Your task to perform on an android device: open app "Facebook Lite" (install if not already installed) Image 0: 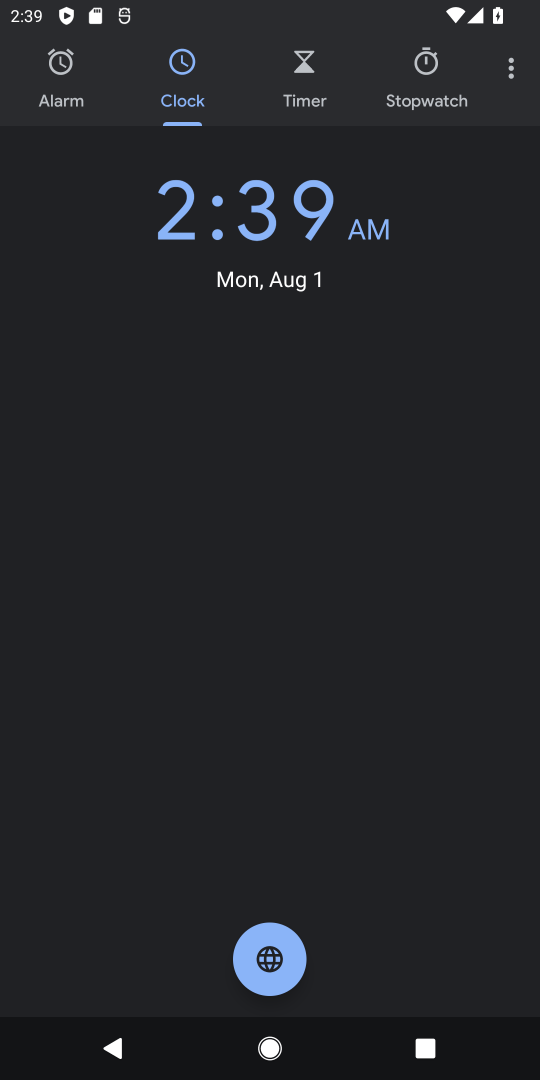
Step 0: press home button
Your task to perform on an android device: open app "Facebook Lite" (install if not already installed) Image 1: 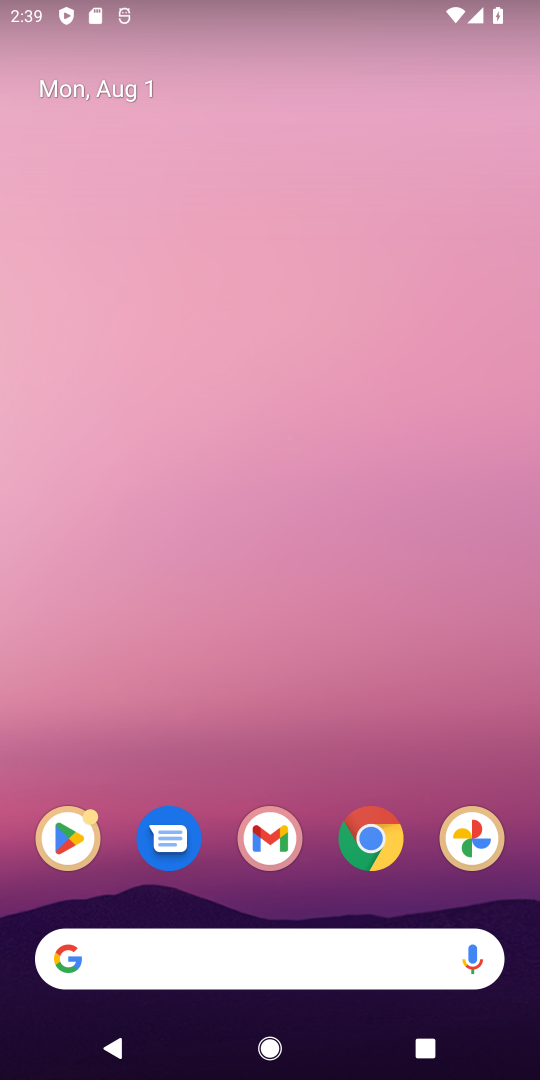
Step 1: drag from (259, 721) to (329, 50)
Your task to perform on an android device: open app "Facebook Lite" (install if not already installed) Image 2: 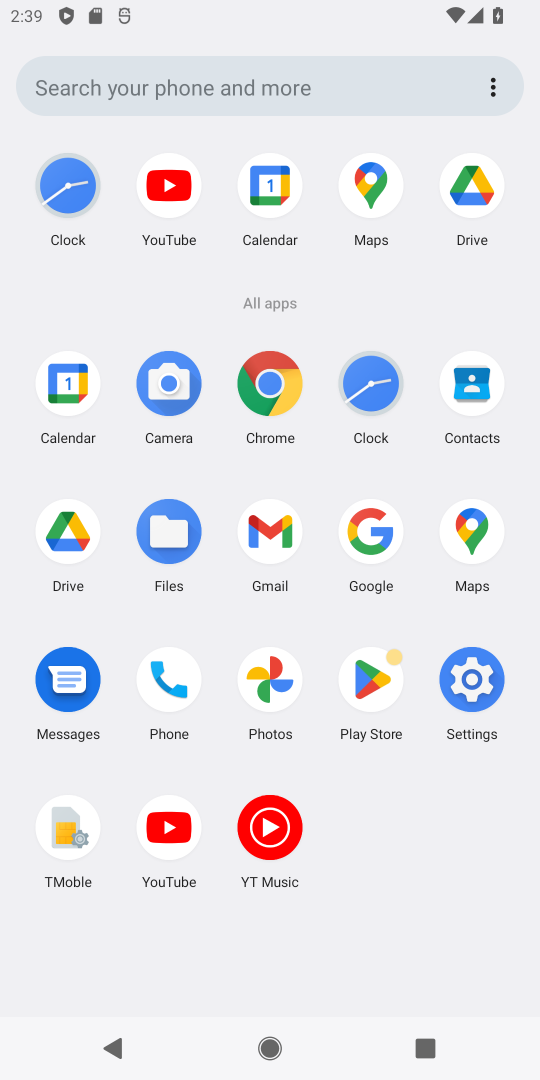
Step 2: click (372, 681)
Your task to perform on an android device: open app "Facebook Lite" (install if not already installed) Image 3: 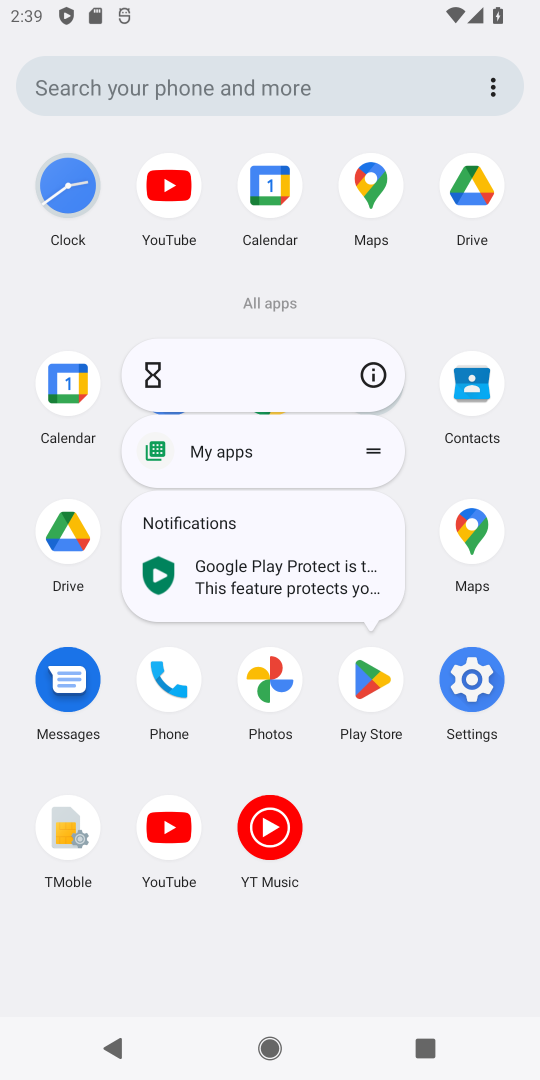
Step 3: click (372, 679)
Your task to perform on an android device: open app "Facebook Lite" (install if not already installed) Image 4: 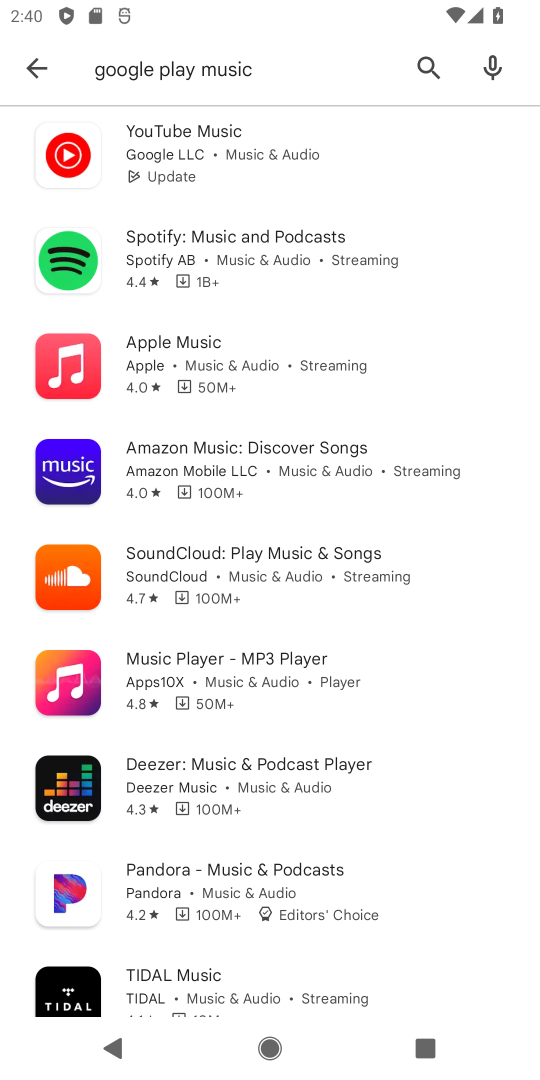
Step 4: click (298, 61)
Your task to perform on an android device: open app "Facebook Lite" (install if not already installed) Image 5: 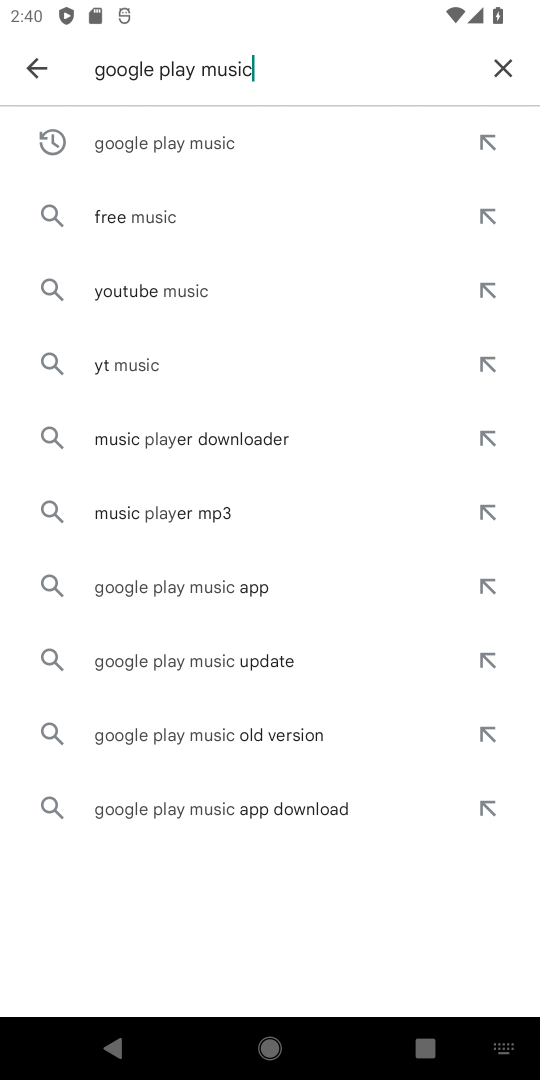
Step 5: click (504, 61)
Your task to perform on an android device: open app "Facebook Lite" (install if not already installed) Image 6: 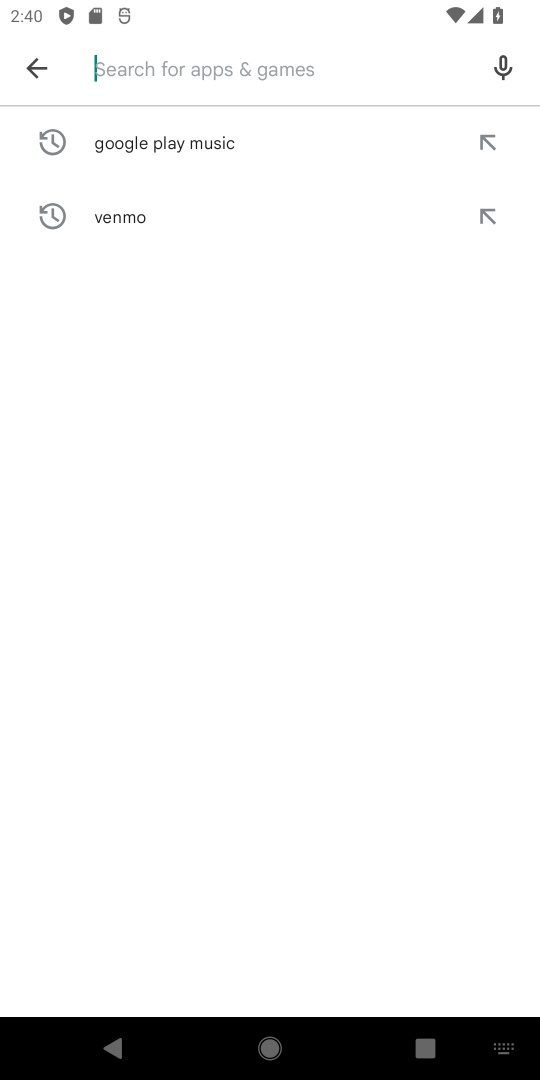
Step 6: type "facebook lite"
Your task to perform on an android device: open app "Facebook Lite" (install if not already installed) Image 7: 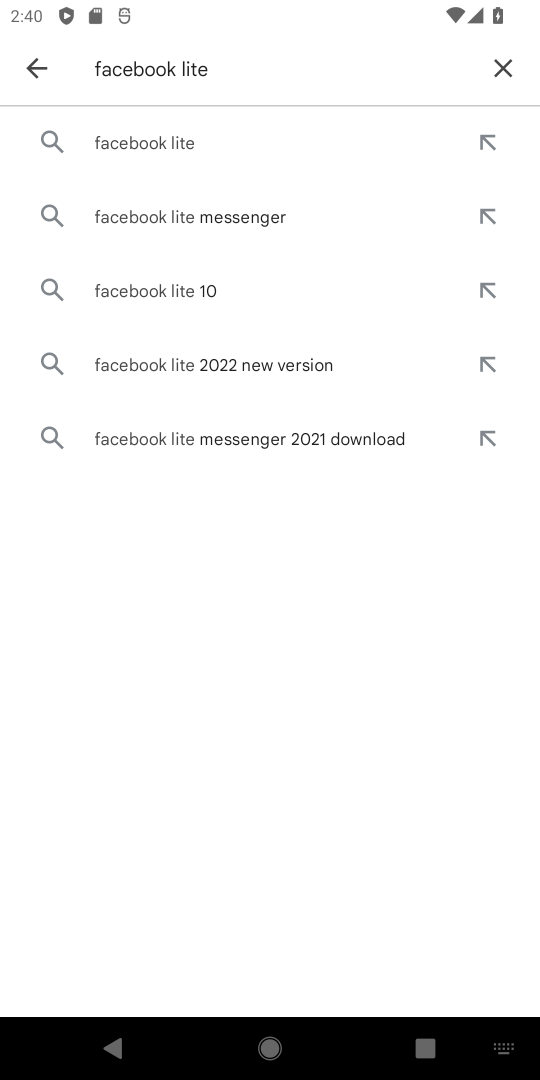
Step 7: click (168, 144)
Your task to perform on an android device: open app "Facebook Lite" (install if not already installed) Image 8: 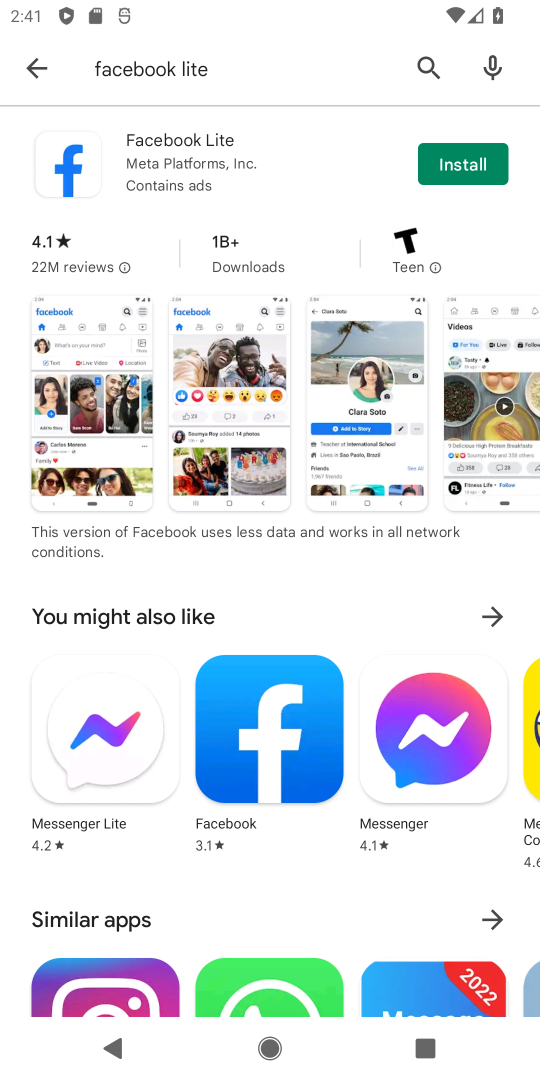
Step 8: click (462, 153)
Your task to perform on an android device: open app "Facebook Lite" (install if not already installed) Image 9: 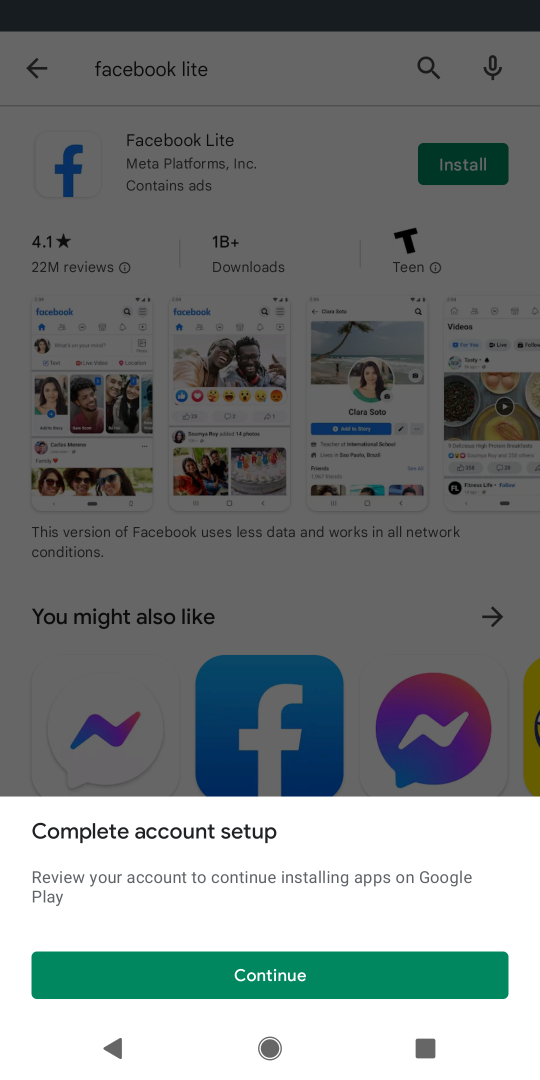
Step 9: click (429, 977)
Your task to perform on an android device: open app "Facebook Lite" (install if not already installed) Image 10: 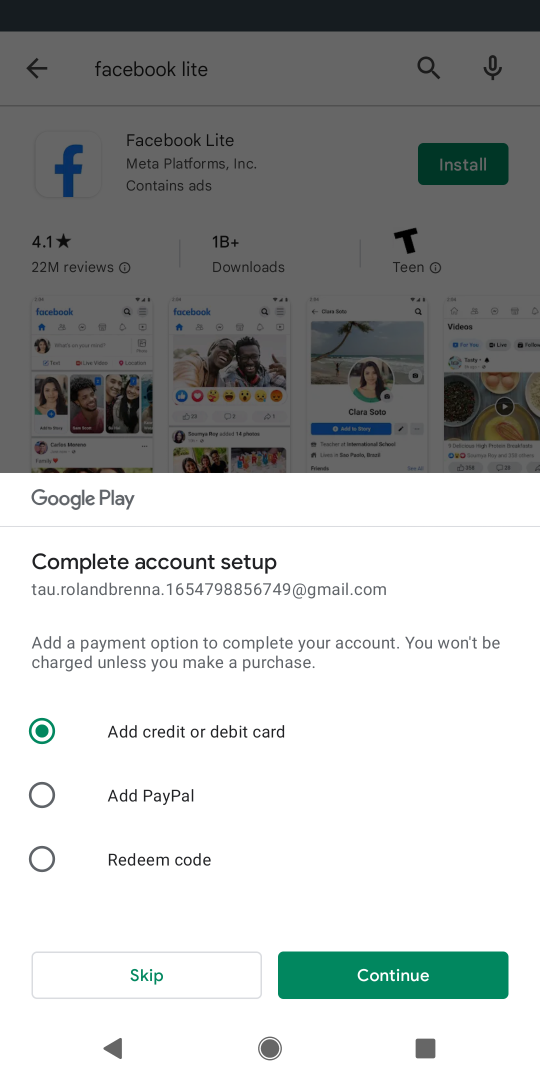
Step 10: click (138, 976)
Your task to perform on an android device: open app "Facebook Lite" (install if not already installed) Image 11: 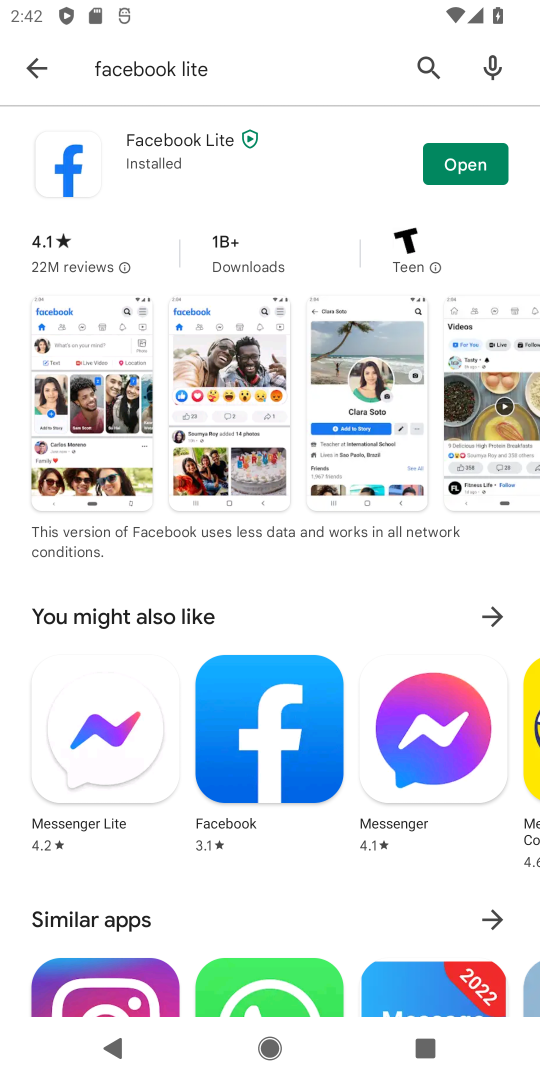
Step 11: click (479, 169)
Your task to perform on an android device: open app "Facebook Lite" (install if not already installed) Image 12: 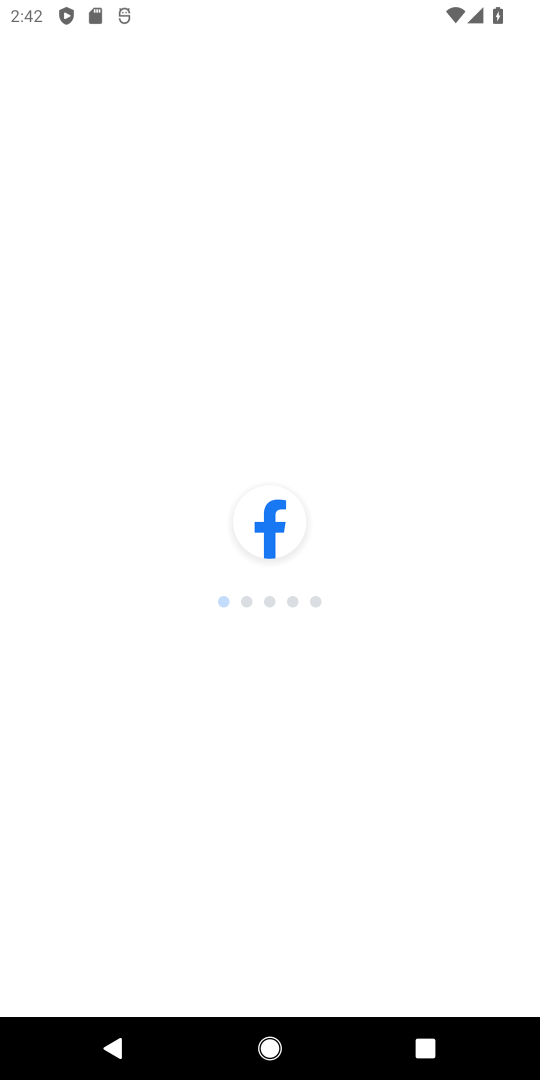
Step 12: task complete